Your task to perform on an android device: Go to accessibility settings Image 0: 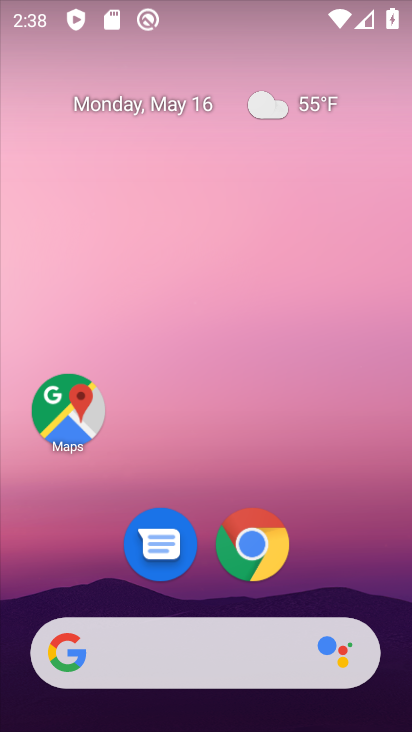
Step 0: drag from (363, 489) to (321, 109)
Your task to perform on an android device: Go to accessibility settings Image 1: 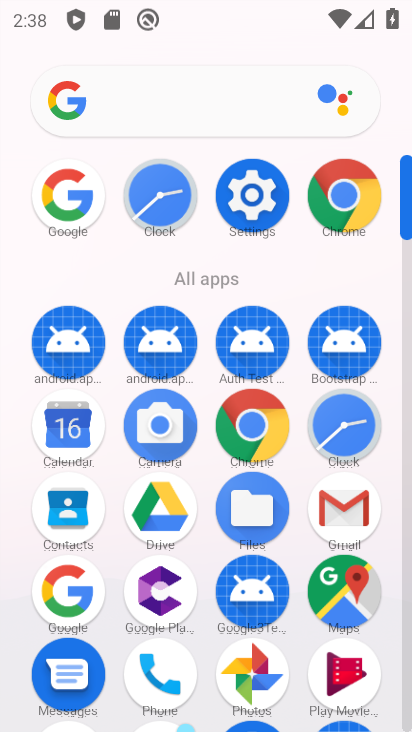
Step 1: click (275, 208)
Your task to perform on an android device: Go to accessibility settings Image 2: 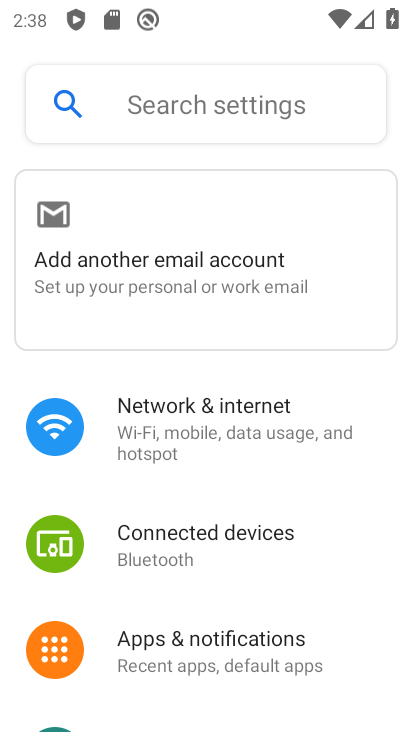
Step 2: drag from (265, 637) to (234, 256)
Your task to perform on an android device: Go to accessibility settings Image 3: 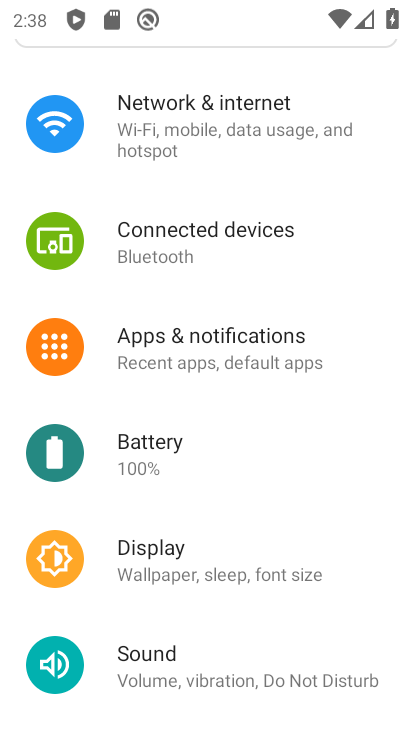
Step 3: drag from (232, 516) to (234, 267)
Your task to perform on an android device: Go to accessibility settings Image 4: 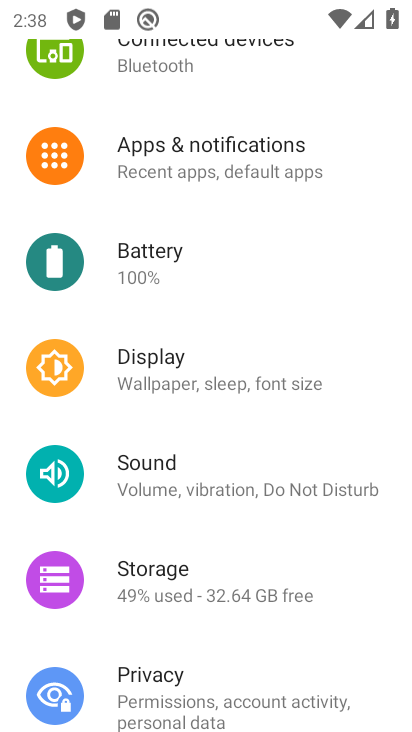
Step 4: drag from (215, 580) to (261, 274)
Your task to perform on an android device: Go to accessibility settings Image 5: 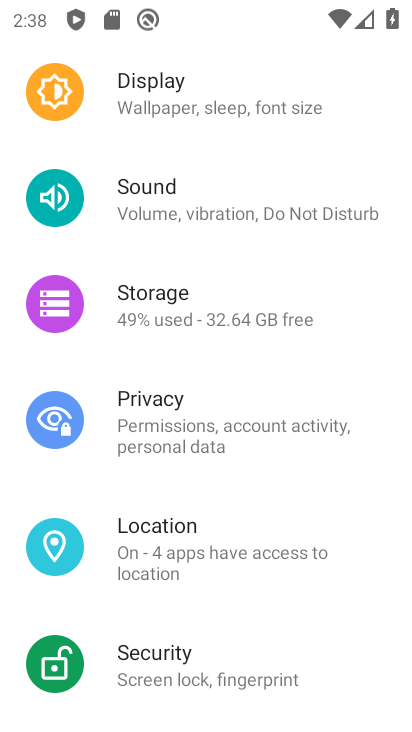
Step 5: drag from (268, 289) to (272, 599)
Your task to perform on an android device: Go to accessibility settings Image 6: 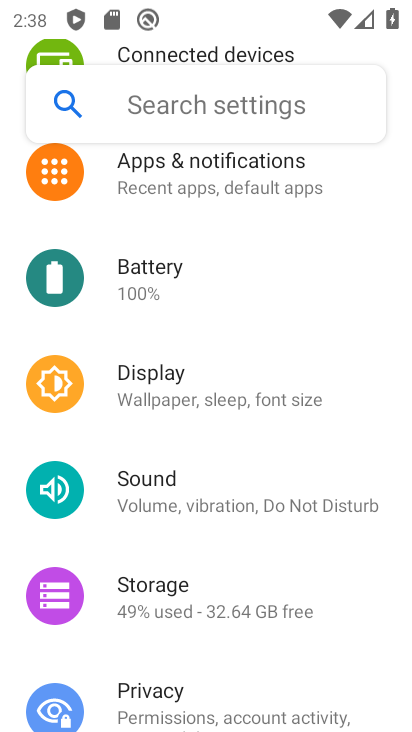
Step 6: drag from (256, 221) to (259, 584)
Your task to perform on an android device: Go to accessibility settings Image 7: 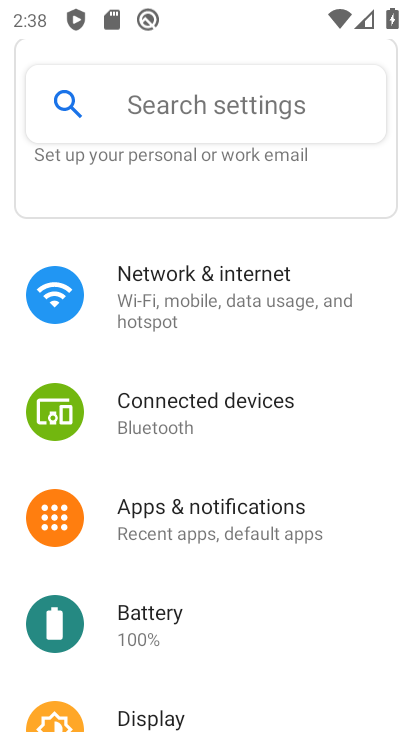
Step 7: drag from (230, 598) to (237, 255)
Your task to perform on an android device: Go to accessibility settings Image 8: 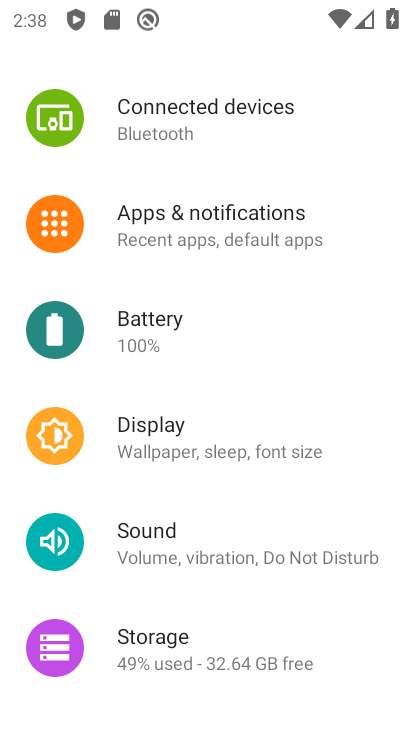
Step 8: drag from (217, 512) to (251, 213)
Your task to perform on an android device: Go to accessibility settings Image 9: 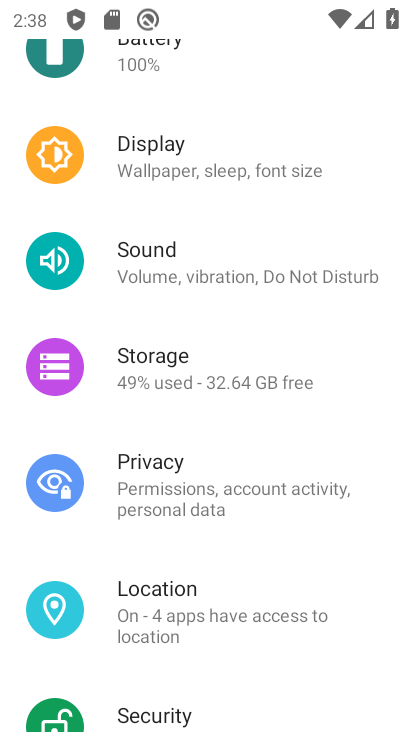
Step 9: drag from (188, 574) to (265, 185)
Your task to perform on an android device: Go to accessibility settings Image 10: 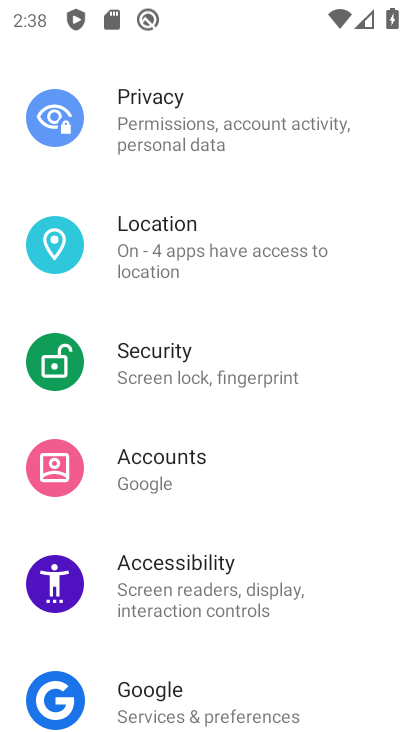
Step 10: click (183, 561)
Your task to perform on an android device: Go to accessibility settings Image 11: 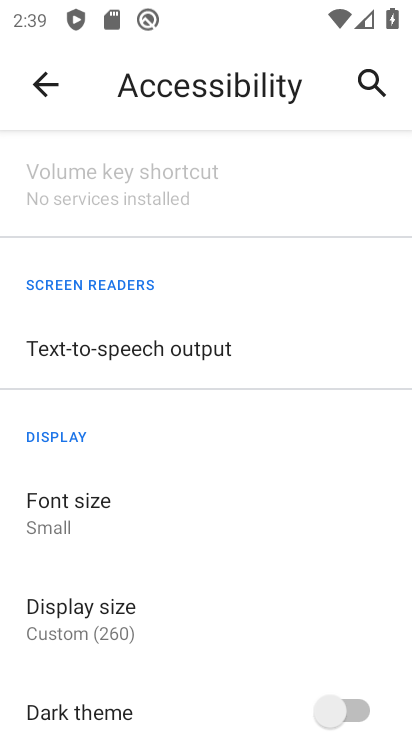
Step 11: task complete